Your task to perform on an android device: toggle wifi Image 0: 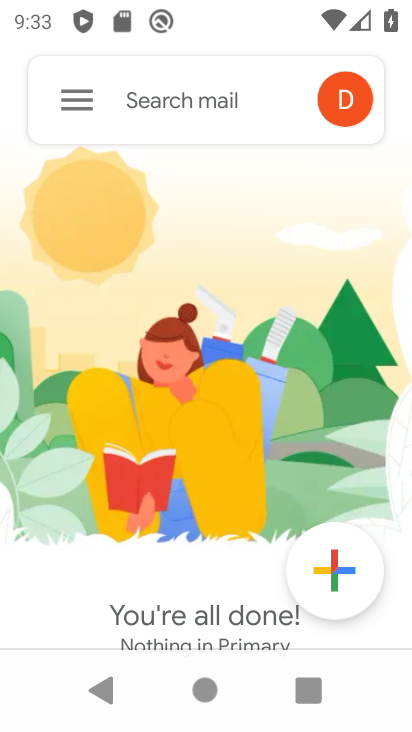
Step 0: press home button
Your task to perform on an android device: toggle wifi Image 1: 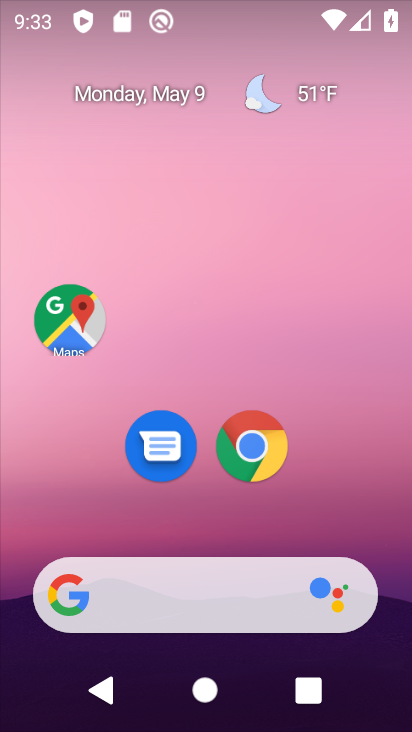
Step 1: drag from (347, 486) to (155, 1)
Your task to perform on an android device: toggle wifi Image 2: 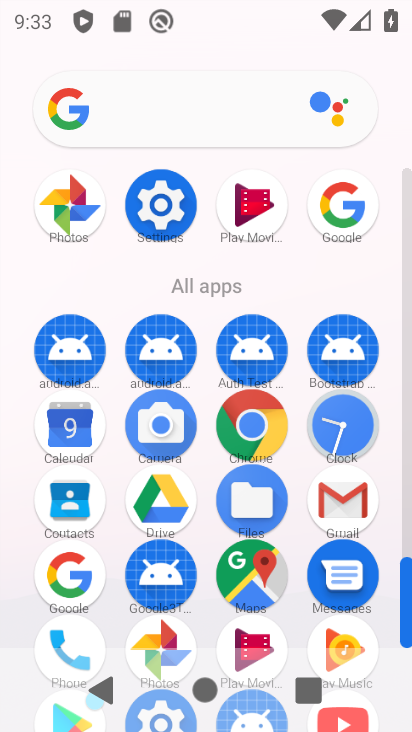
Step 2: click (177, 203)
Your task to perform on an android device: toggle wifi Image 3: 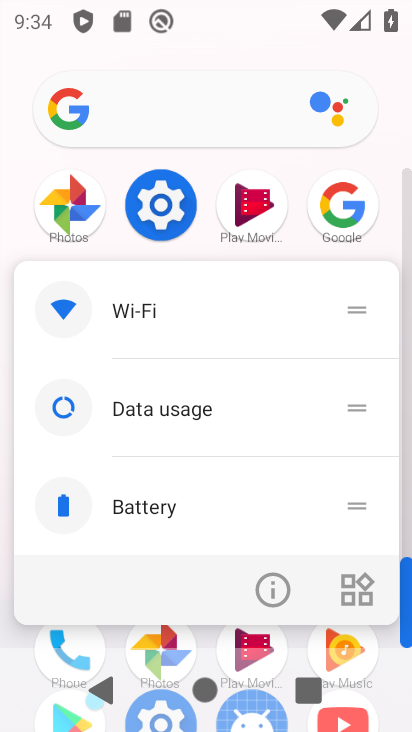
Step 3: click (179, 312)
Your task to perform on an android device: toggle wifi Image 4: 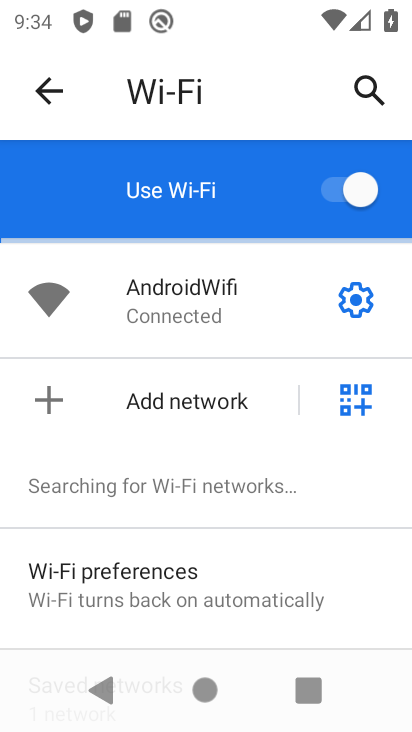
Step 4: click (367, 190)
Your task to perform on an android device: toggle wifi Image 5: 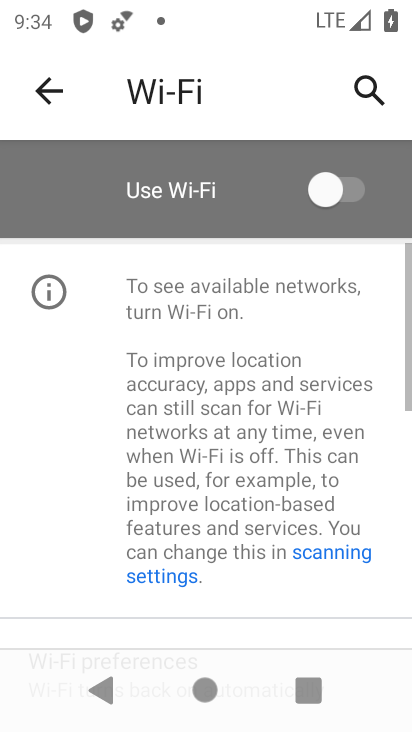
Step 5: task complete